Your task to perform on an android device: toggle sleep mode Image 0: 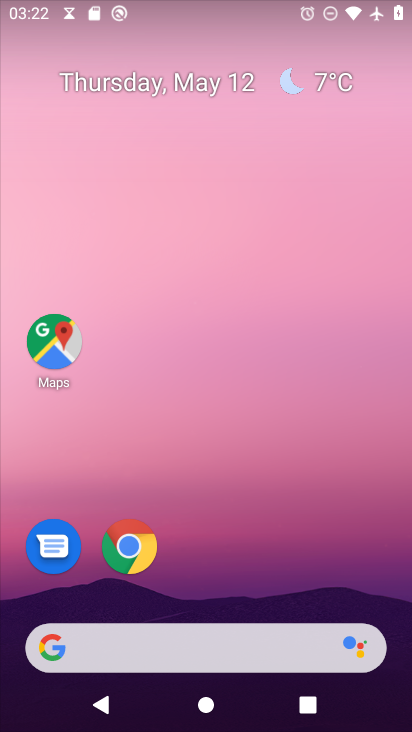
Step 0: drag from (139, 655) to (270, 176)
Your task to perform on an android device: toggle sleep mode Image 1: 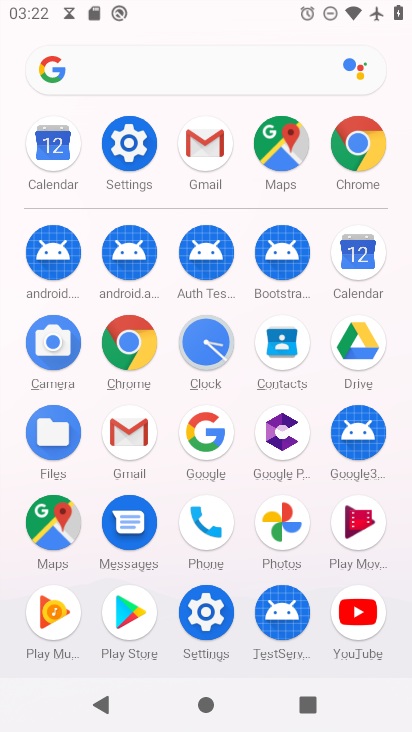
Step 1: click (125, 135)
Your task to perform on an android device: toggle sleep mode Image 2: 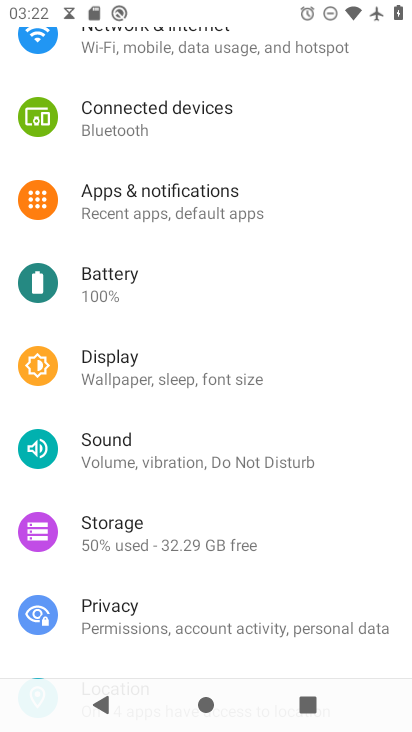
Step 2: click (164, 380)
Your task to perform on an android device: toggle sleep mode Image 3: 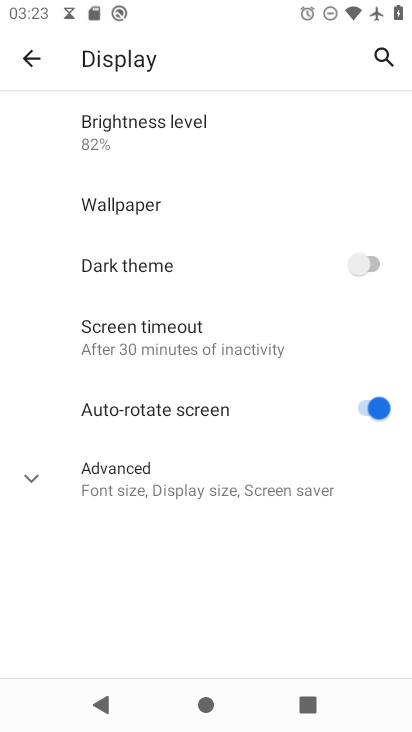
Step 3: task complete